Your task to perform on an android device: search for starred emails in the gmail app Image 0: 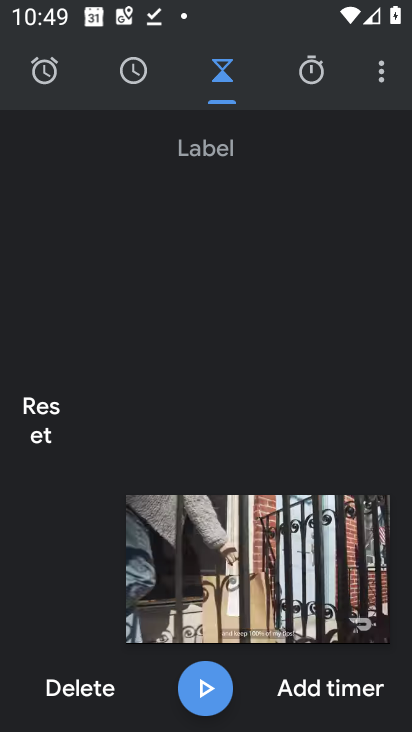
Step 0: click (368, 508)
Your task to perform on an android device: search for starred emails in the gmail app Image 1: 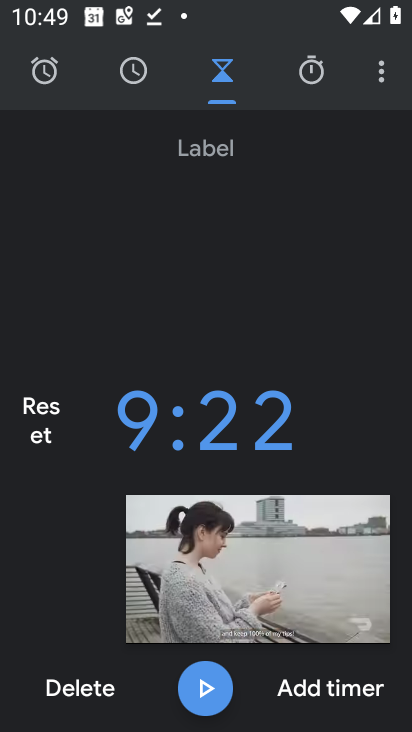
Step 1: click (368, 510)
Your task to perform on an android device: search for starred emails in the gmail app Image 2: 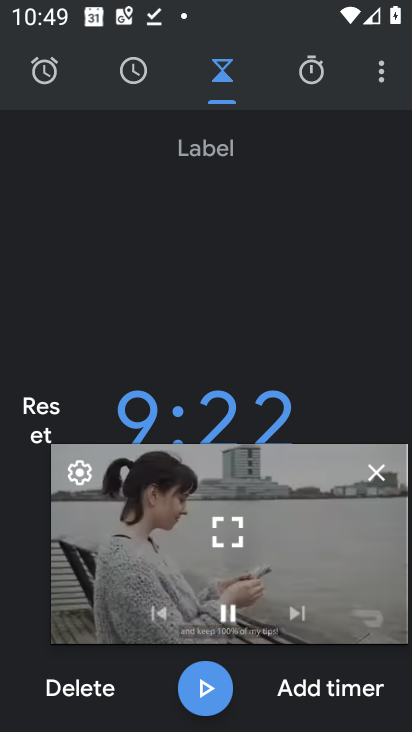
Step 2: click (367, 511)
Your task to perform on an android device: search for starred emails in the gmail app Image 3: 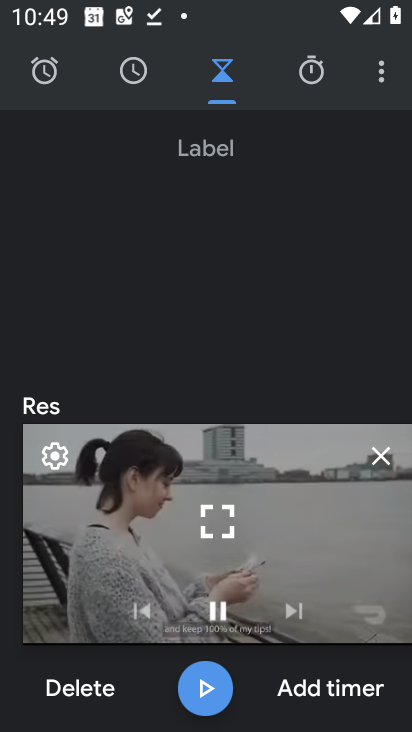
Step 3: click (367, 511)
Your task to perform on an android device: search for starred emails in the gmail app Image 4: 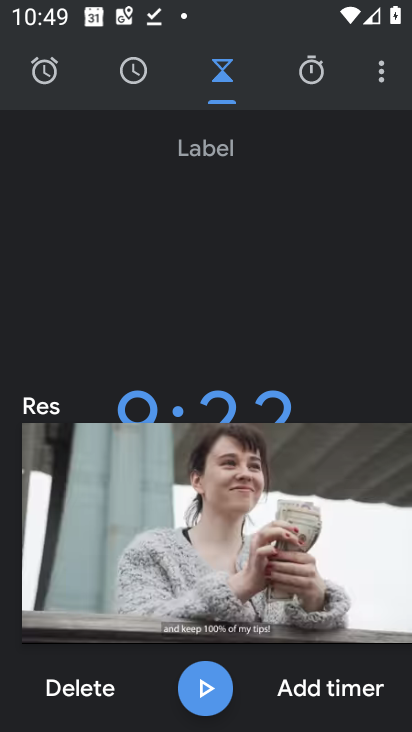
Step 4: click (316, 516)
Your task to perform on an android device: search for starred emails in the gmail app Image 5: 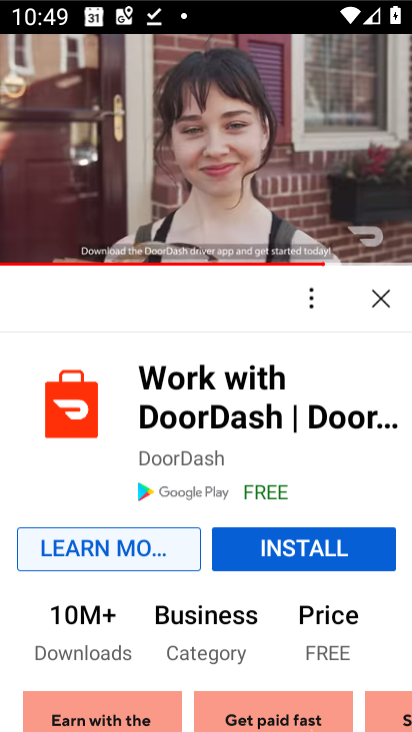
Step 5: click (312, 515)
Your task to perform on an android device: search for starred emails in the gmail app Image 6: 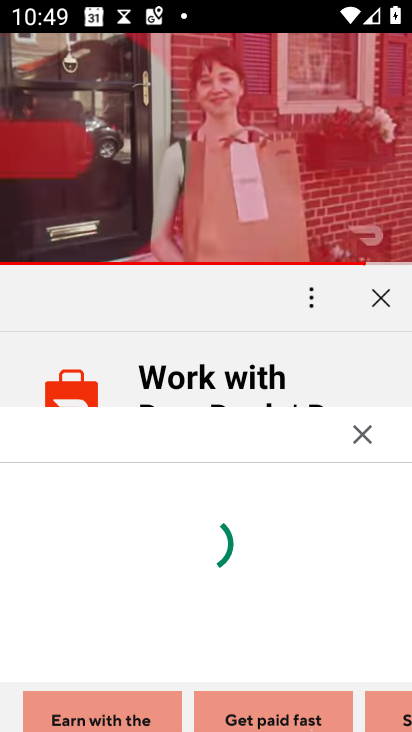
Step 6: click (362, 293)
Your task to perform on an android device: search for starred emails in the gmail app Image 7: 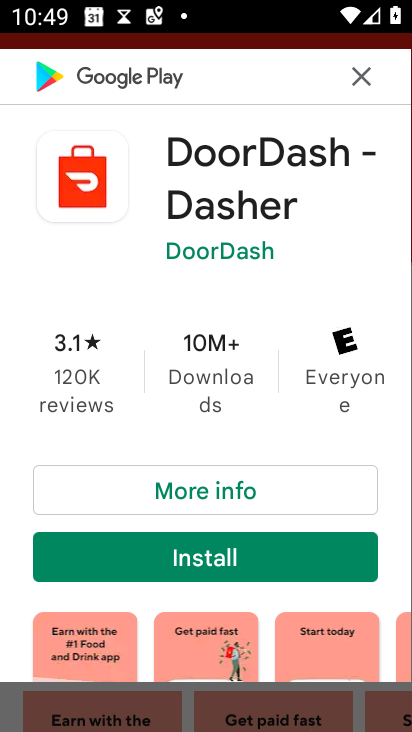
Step 7: click (351, 82)
Your task to perform on an android device: search for starred emails in the gmail app Image 8: 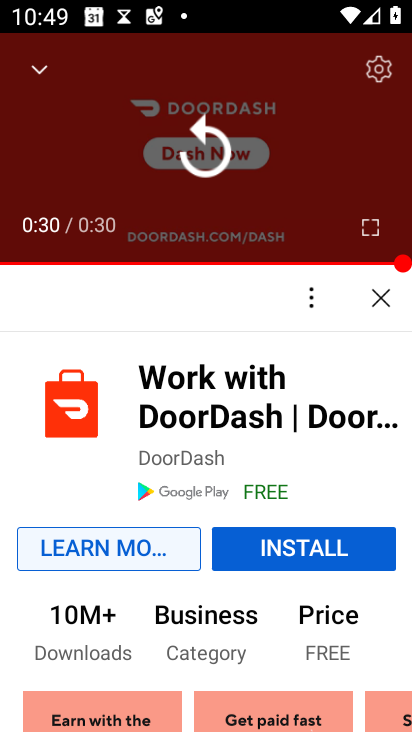
Step 8: press back button
Your task to perform on an android device: search for starred emails in the gmail app Image 9: 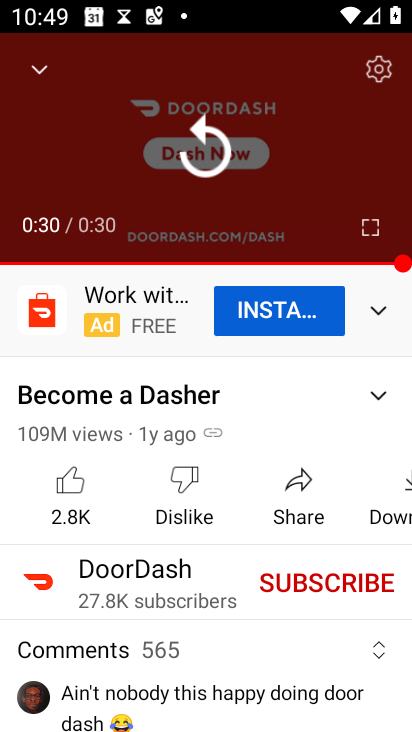
Step 9: press back button
Your task to perform on an android device: search for starred emails in the gmail app Image 10: 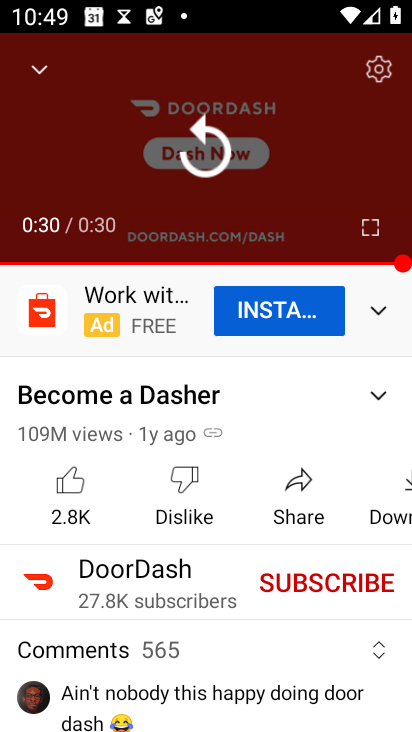
Step 10: press back button
Your task to perform on an android device: search for starred emails in the gmail app Image 11: 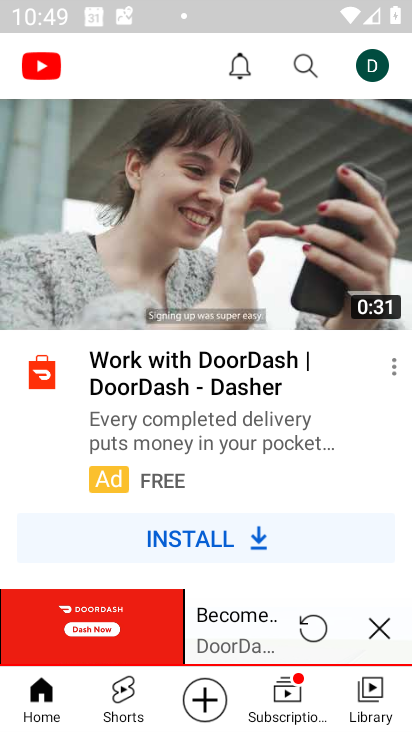
Step 11: press back button
Your task to perform on an android device: search for starred emails in the gmail app Image 12: 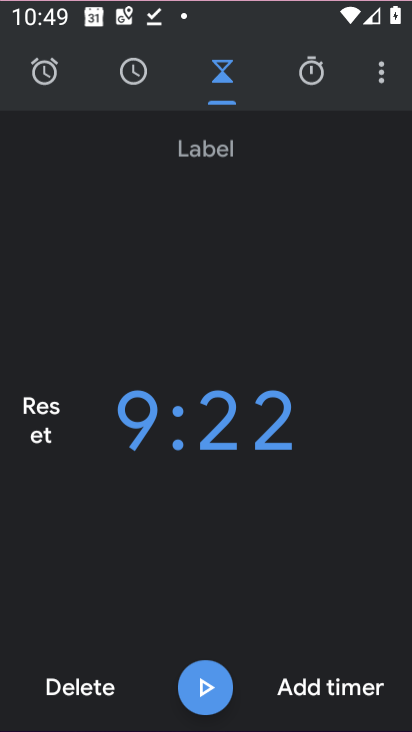
Step 12: press home button
Your task to perform on an android device: search for starred emails in the gmail app Image 13: 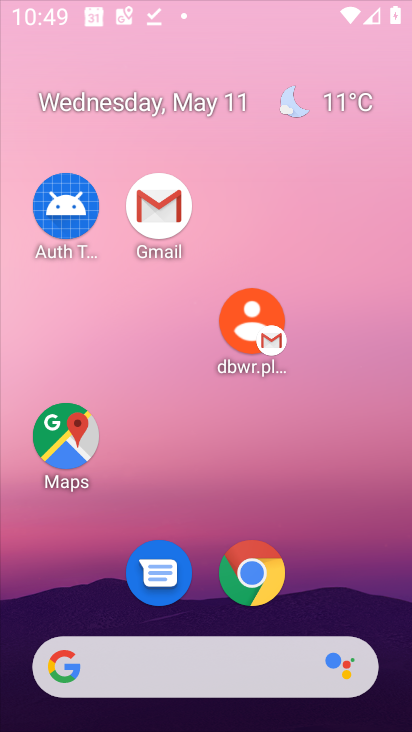
Step 13: press home button
Your task to perform on an android device: search for starred emails in the gmail app Image 14: 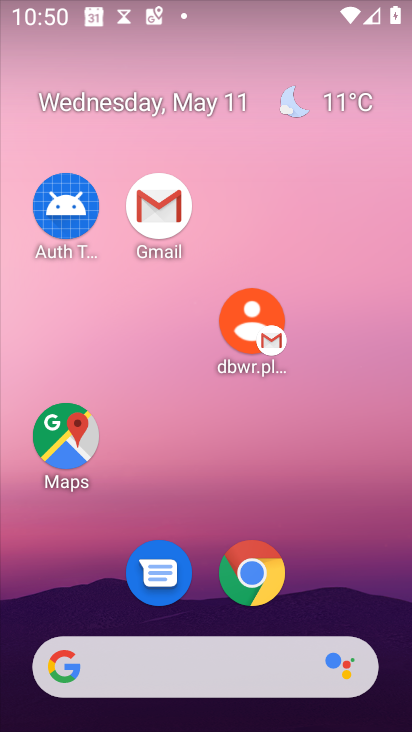
Step 14: drag from (343, 606) to (129, 127)
Your task to perform on an android device: search for starred emails in the gmail app Image 15: 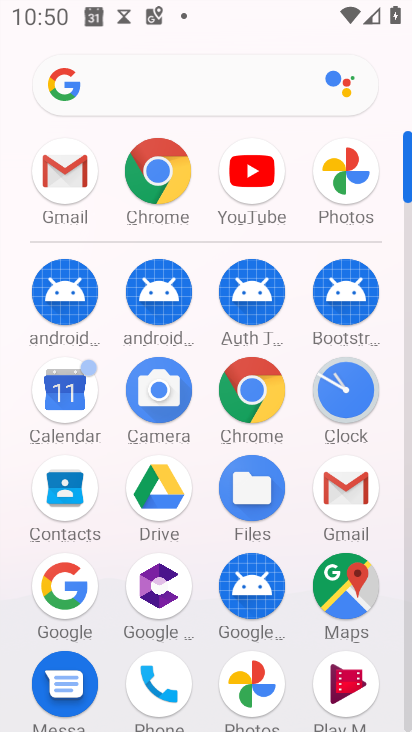
Step 15: click (306, 479)
Your task to perform on an android device: search for starred emails in the gmail app Image 16: 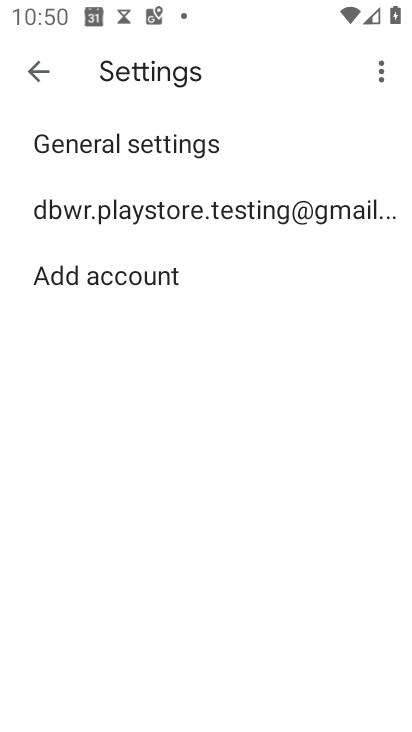
Step 16: click (37, 64)
Your task to perform on an android device: search for starred emails in the gmail app Image 17: 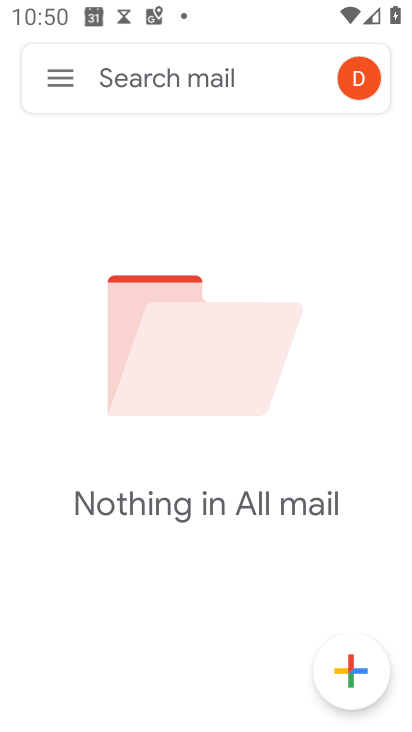
Step 17: click (71, 86)
Your task to perform on an android device: search for starred emails in the gmail app Image 18: 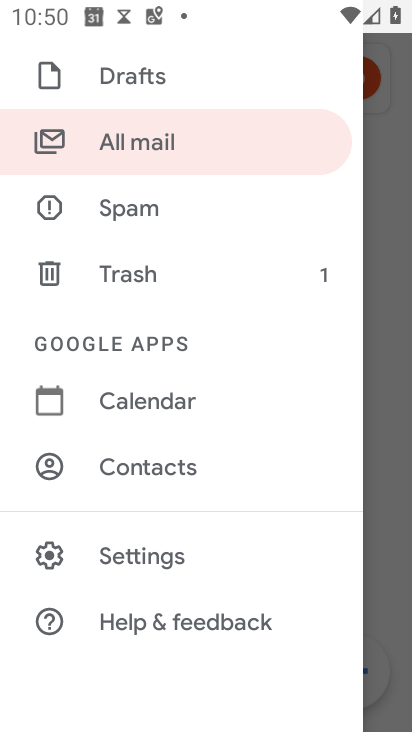
Step 18: drag from (170, 149) to (253, 536)
Your task to perform on an android device: search for starred emails in the gmail app Image 19: 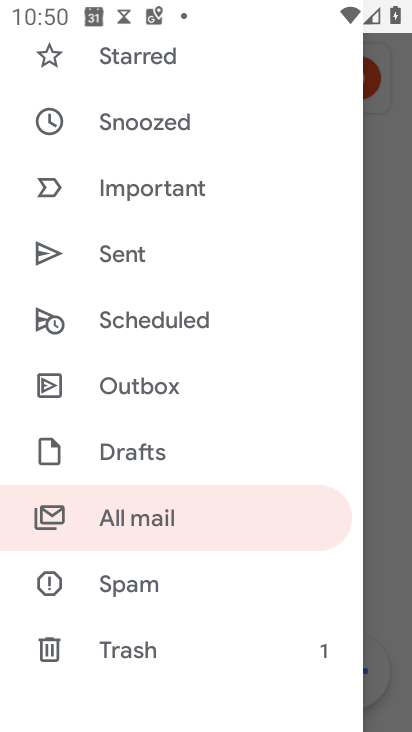
Step 19: click (139, 54)
Your task to perform on an android device: search for starred emails in the gmail app Image 20: 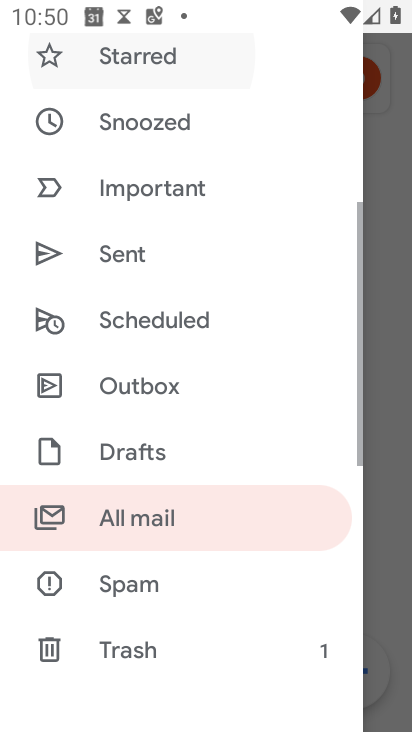
Step 20: click (139, 54)
Your task to perform on an android device: search for starred emails in the gmail app Image 21: 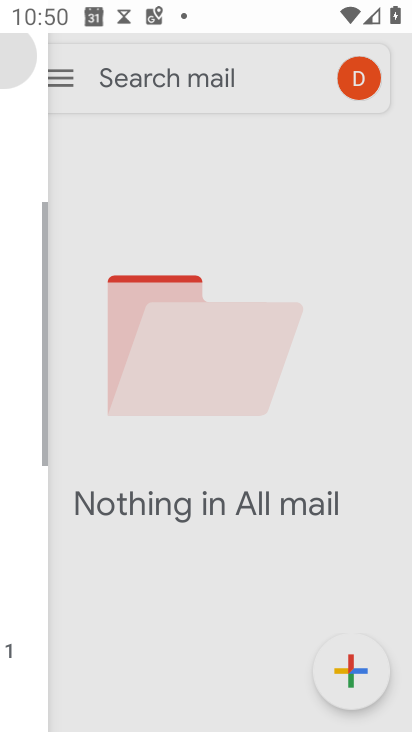
Step 21: click (139, 54)
Your task to perform on an android device: search for starred emails in the gmail app Image 22: 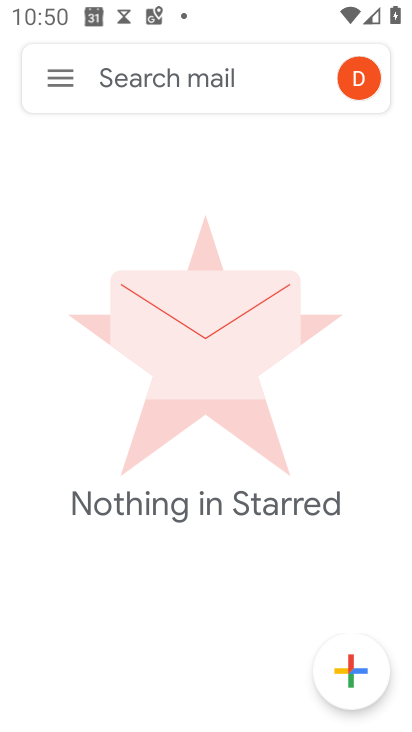
Step 22: task complete